Your task to perform on an android device: change timer sound Image 0: 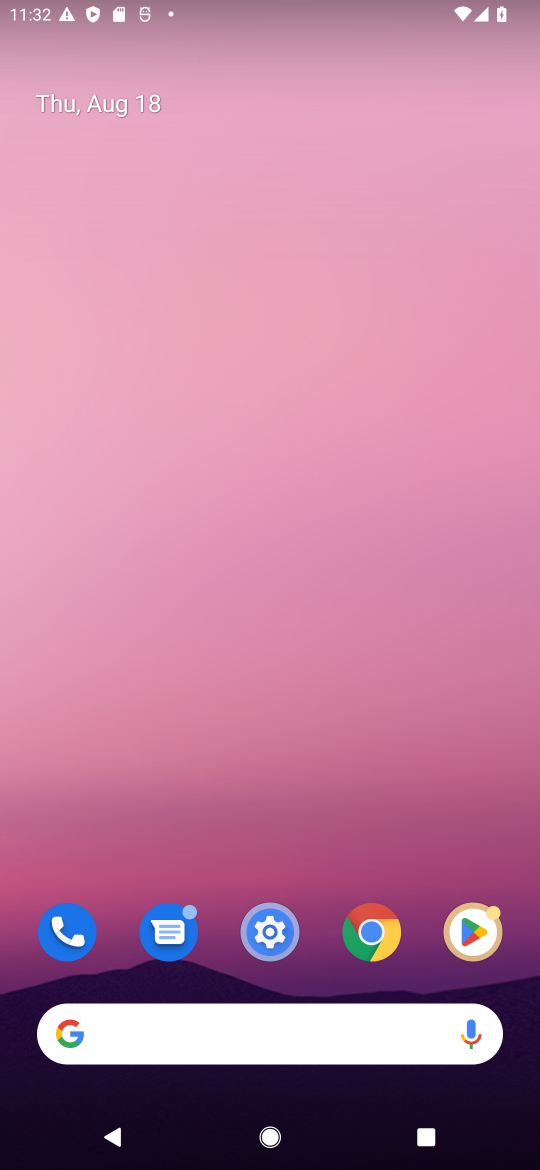
Step 0: drag from (286, 841) to (289, 128)
Your task to perform on an android device: change timer sound Image 1: 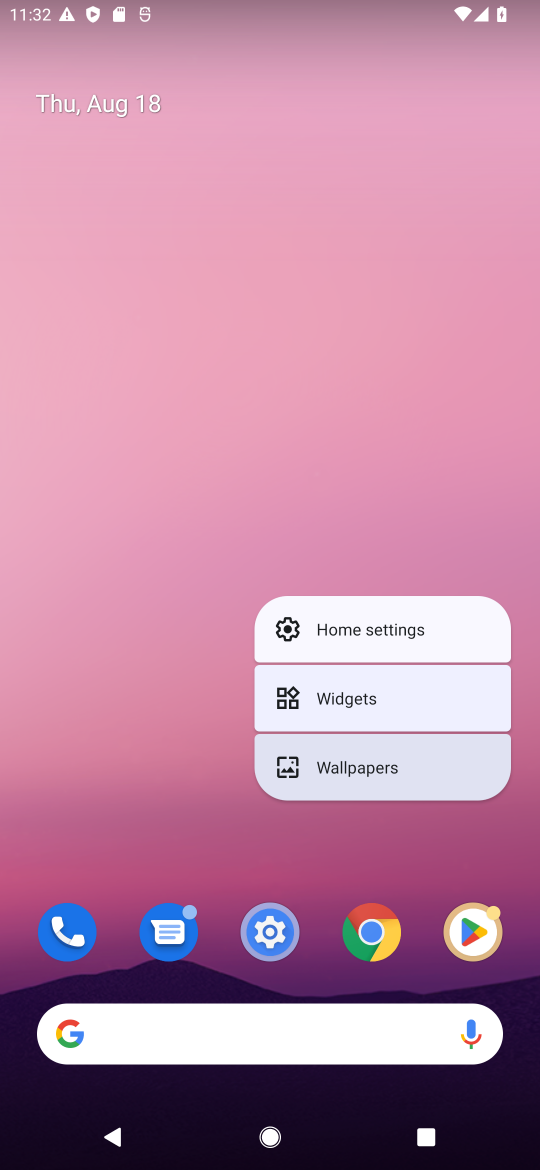
Step 1: drag from (323, 977) to (239, 227)
Your task to perform on an android device: change timer sound Image 2: 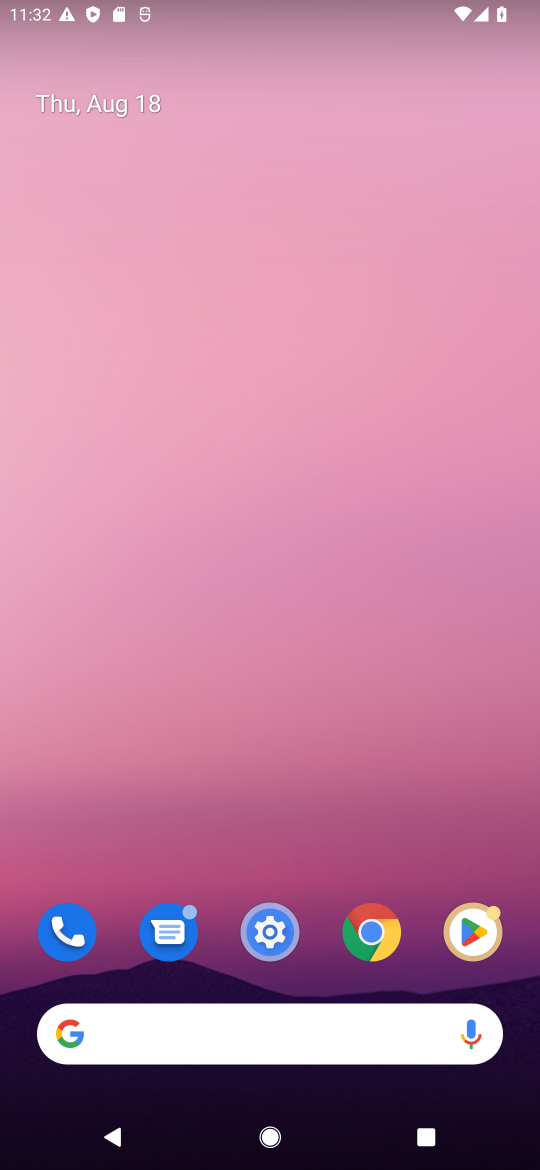
Step 2: drag from (199, 1088) to (206, 256)
Your task to perform on an android device: change timer sound Image 3: 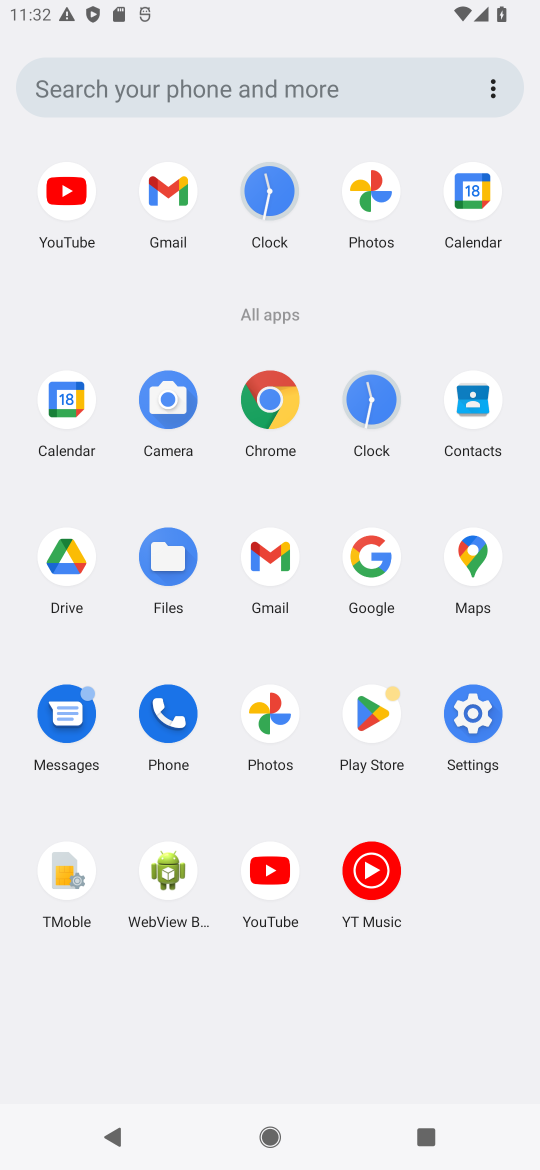
Step 3: click (267, 191)
Your task to perform on an android device: change timer sound Image 4: 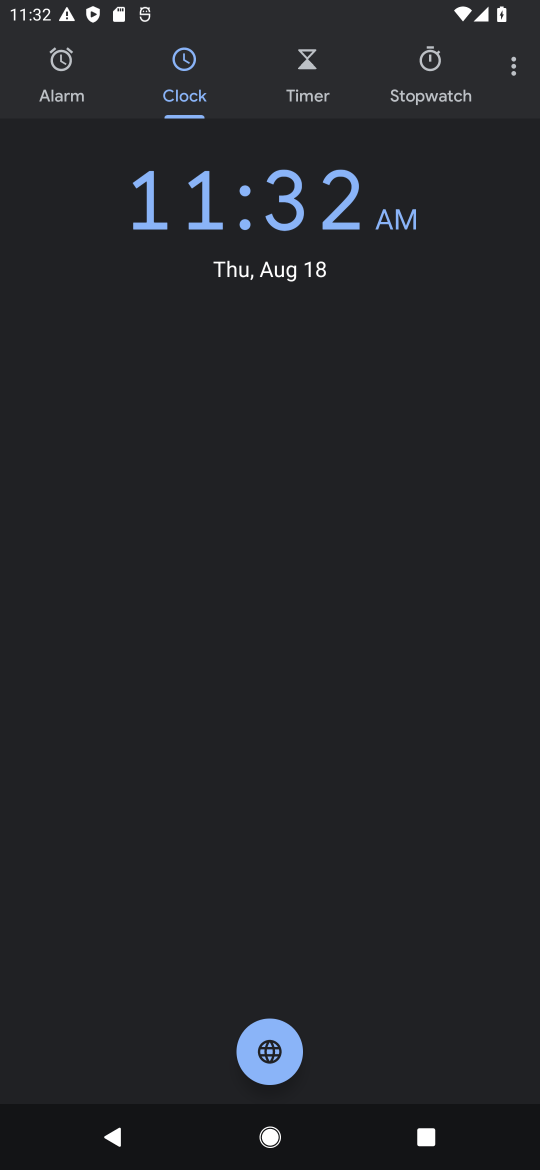
Step 4: click (518, 76)
Your task to perform on an android device: change timer sound Image 5: 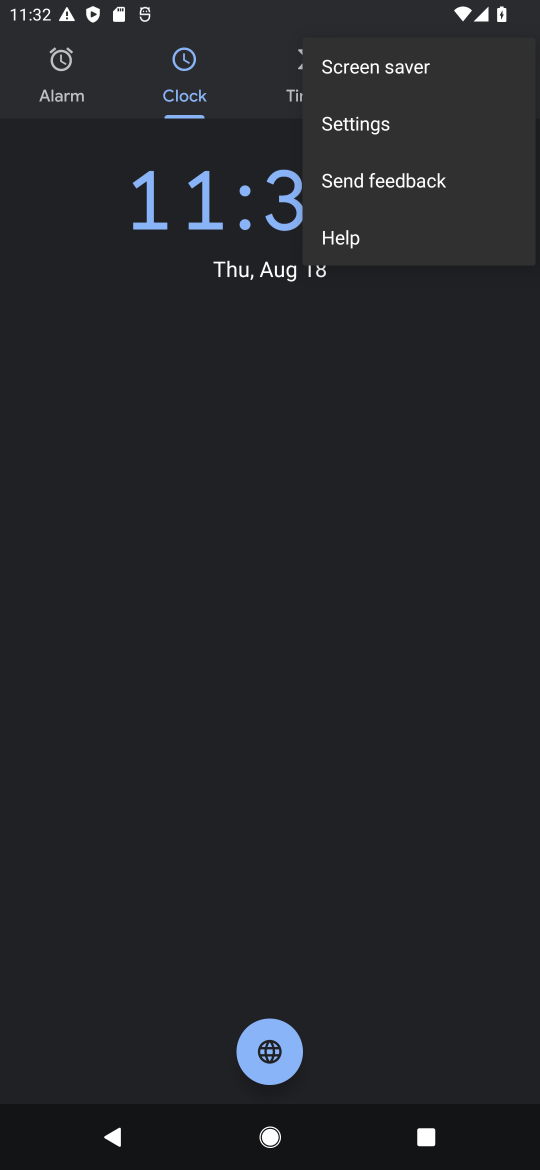
Step 5: click (385, 133)
Your task to perform on an android device: change timer sound Image 6: 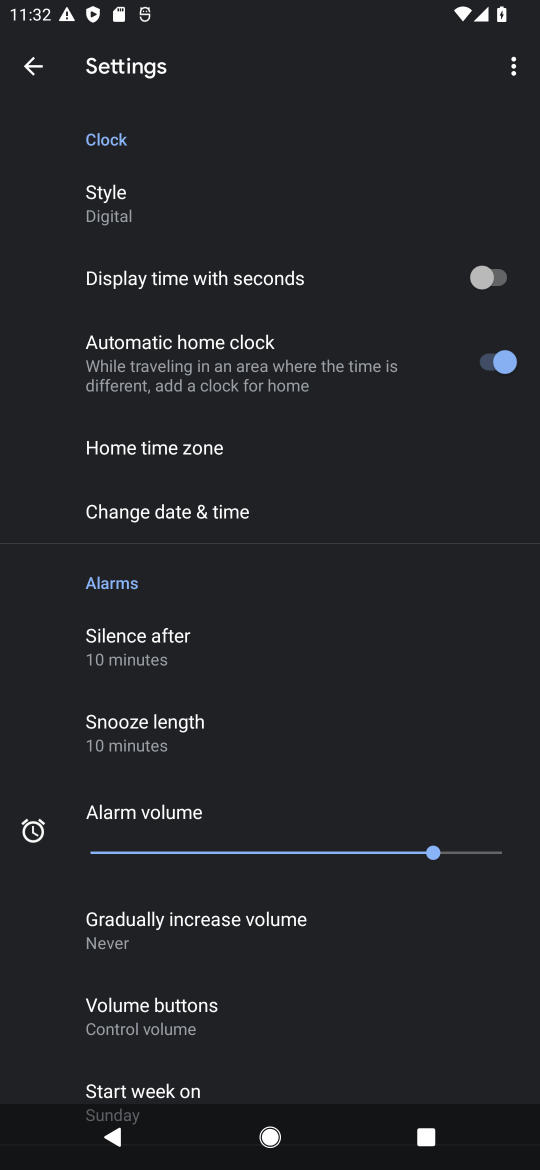
Step 6: drag from (316, 966) to (265, 632)
Your task to perform on an android device: change timer sound Image 7: 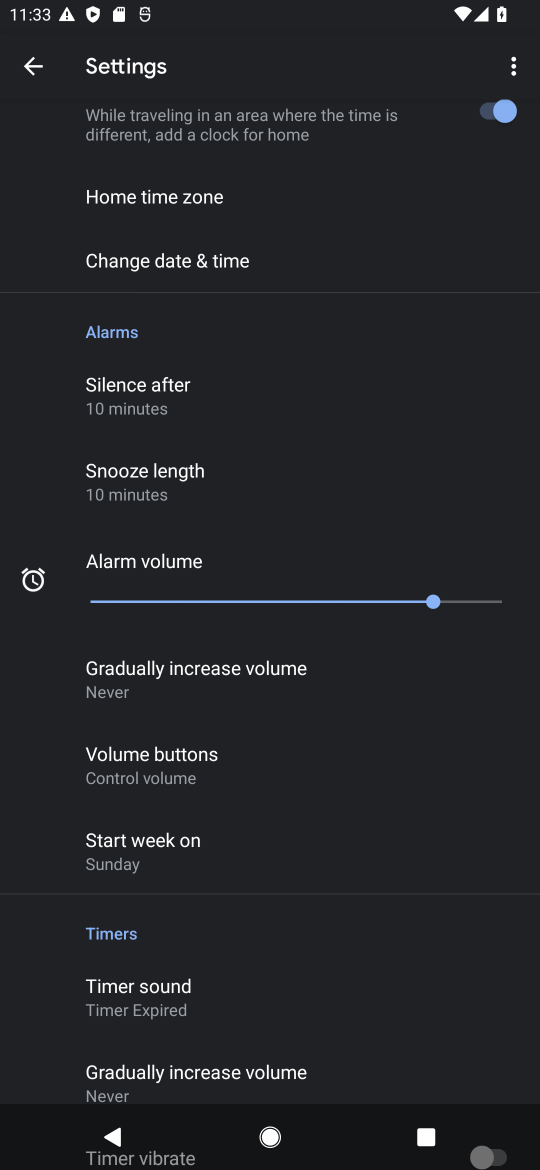
Step 7: click (147, 982)
Your task to perform on an android device: change timer sound Image 8: 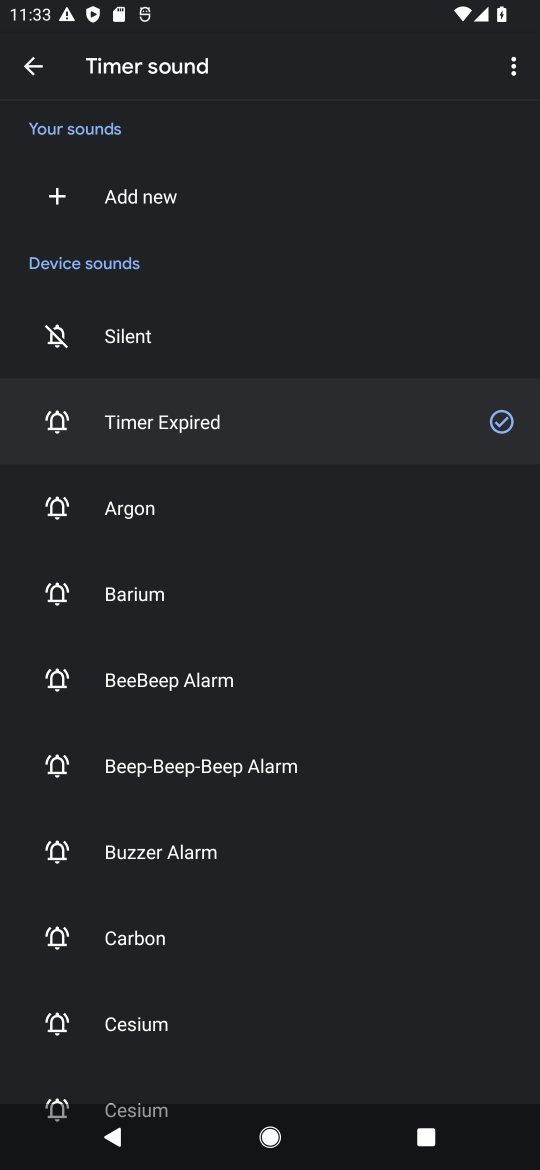
Step 8: click (129, 602)
Your task to perform on an android device: change timer sound Image 9: 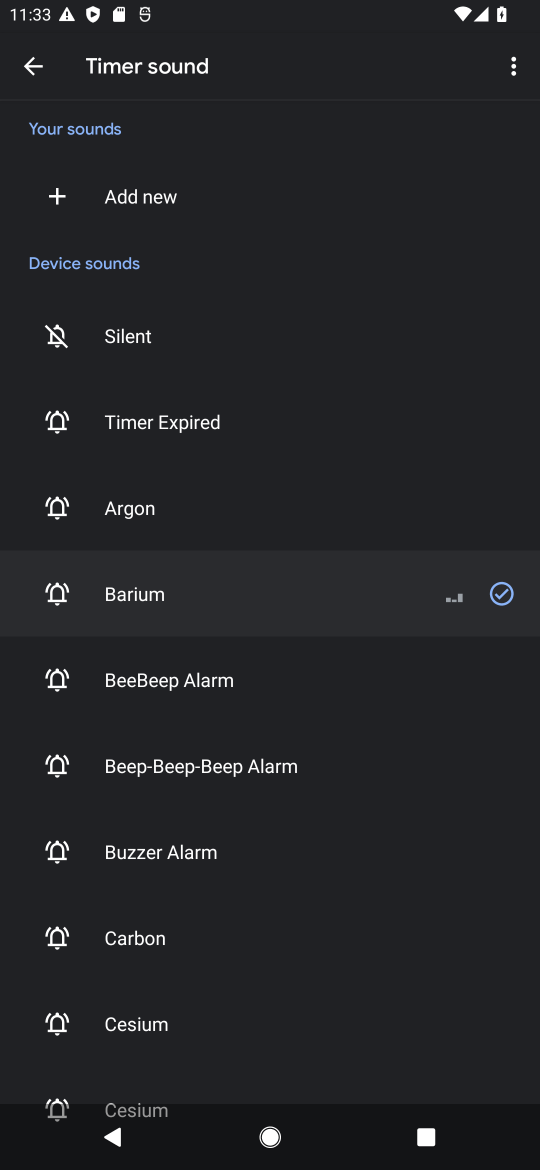
Step 9: task complete